Your task to perform on an android device: toggle location history Image 0: 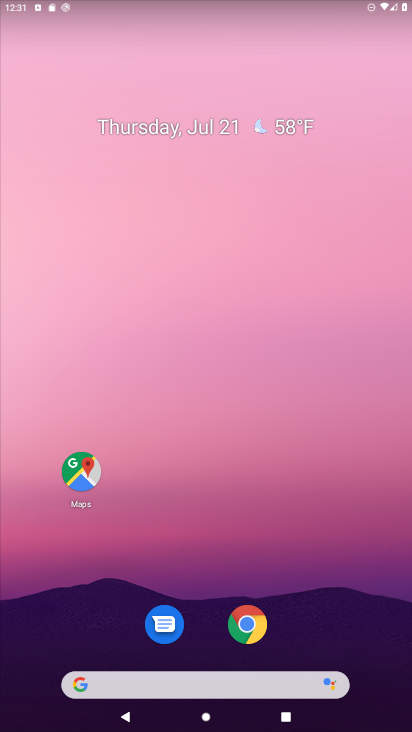
Step 0: drag from (188, 564) to (185, 163)
Your task to perform on an android device: toggle location history Image 1: 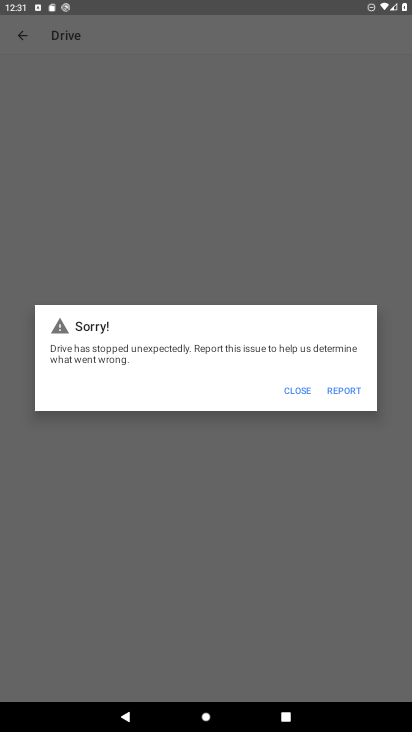
Step 1: press back button
Your task to perform on an android device: toggle location history Image 2: 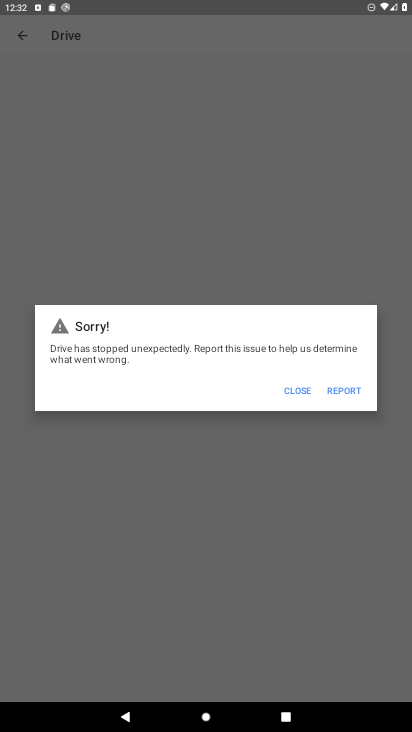
Step 2: press home button
Your task to perform on an android device: toggle location history Image 3: 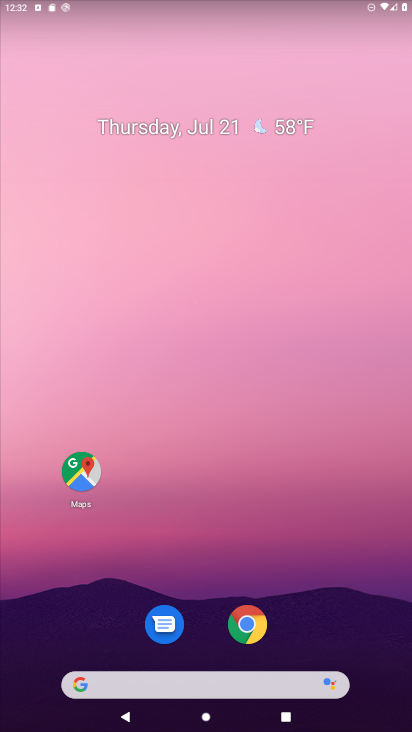
Step 3: drag from (214, 592) to (194, 201)
Your task to perform on an android device: toggle location history Image 4: 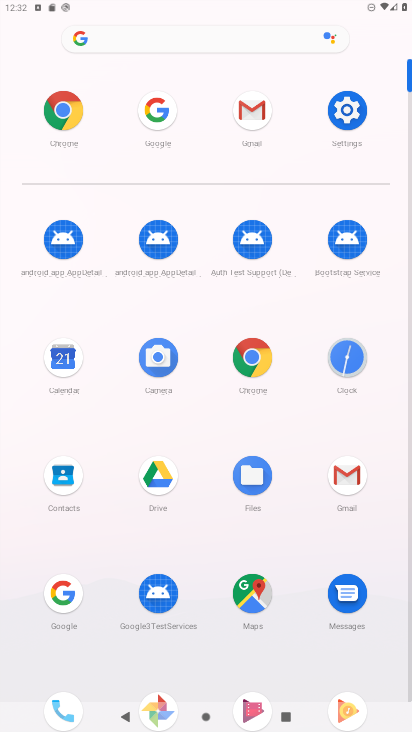
Step 4: click (348, 113)
Your task to perform on an android device: toggle location history Image 5: 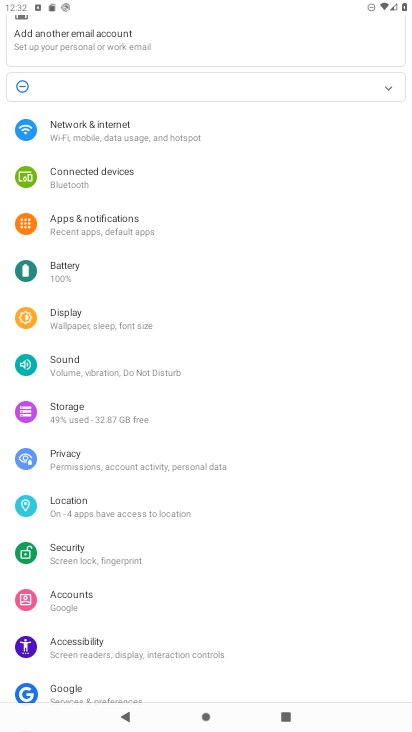
Step 5: click (113, 512)
Your task to perform on an android device: toggle location history Image 6: 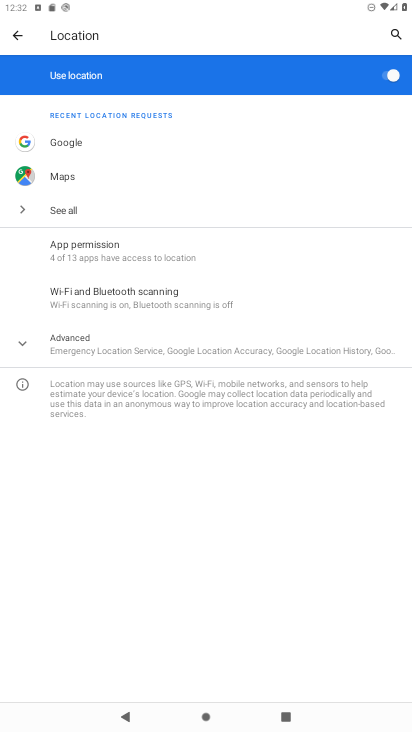
Step 6: click (93, 349)
Your task to perform on an android device: toggle location history Image 7: 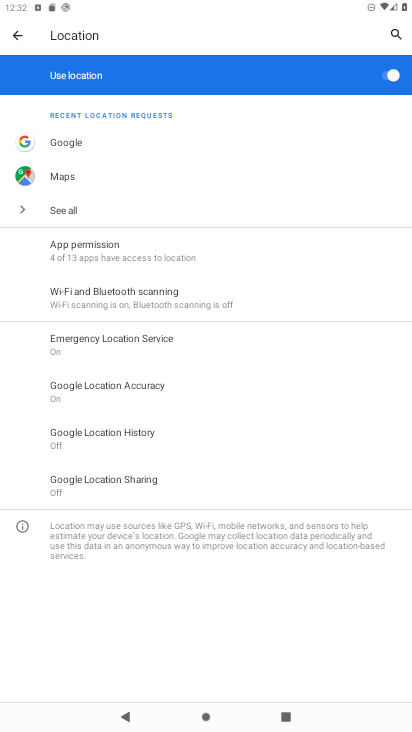
Step 7: click (101, 446)
Your task to perform on an android device: toggle location history Image 8: 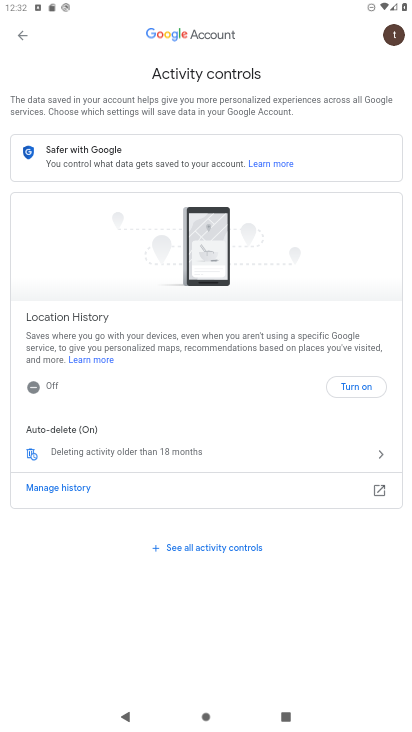
Step 8: click (347, 383)
Your task to perform on an android device: toggle location history Image 9: 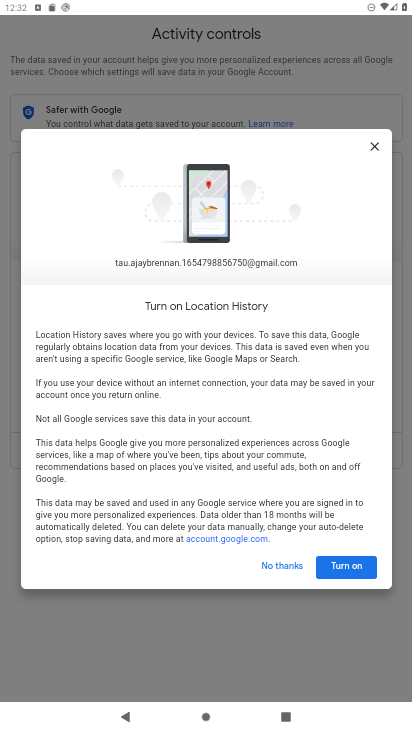
Step 9: click (334, 559)
Your task to perform on an android device: toggle location history Image 10: 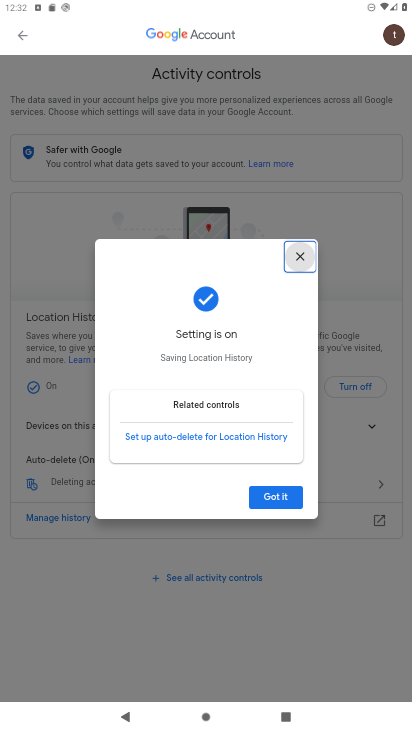
Step 10: click (270, 494)
Your task to perform on an android device: toggle location history Image 11: 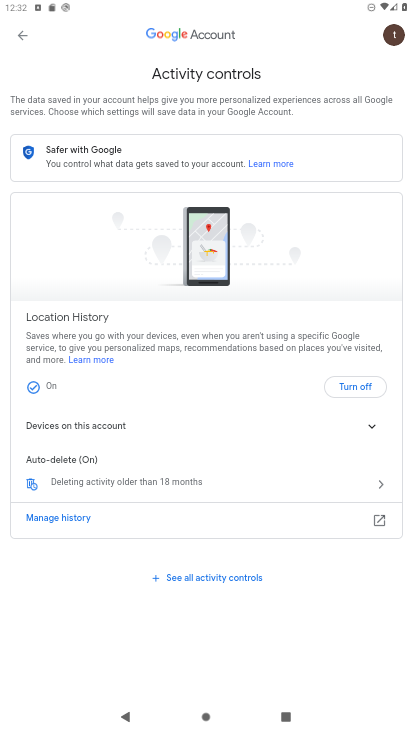
Step 11: task complete